Your task to perform on an android device: search for starred emails in the gmail app Image 0: 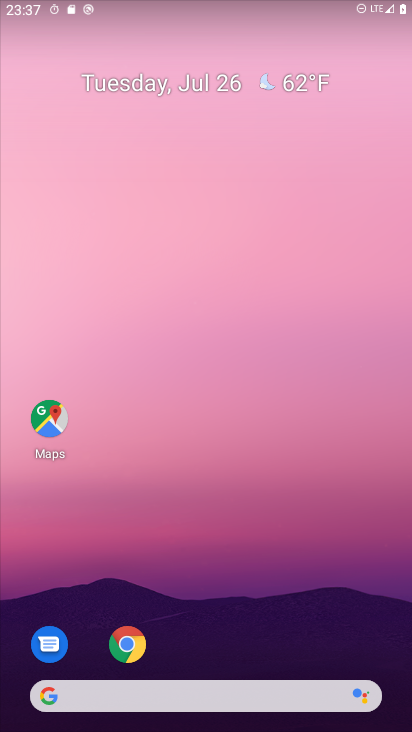
Step 0: drag from (244, 665) to (231, 71)
Your task to perform on an android device: search for starred emails in the gmail app Image 1: 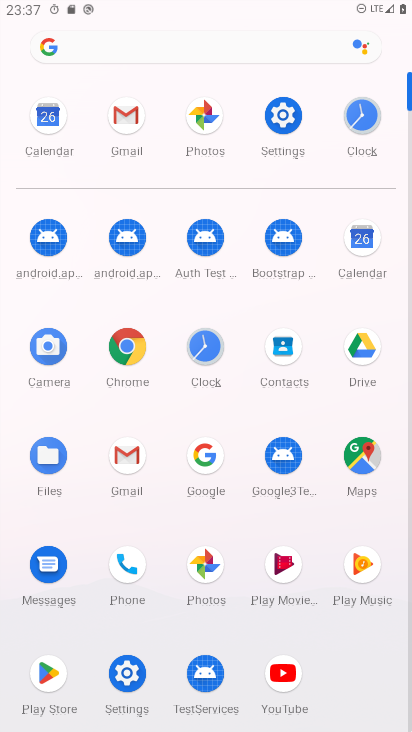
Step 1: click (134, 121)
Your task to perform on an android device: search for starred emails in the gmail app Image 2: 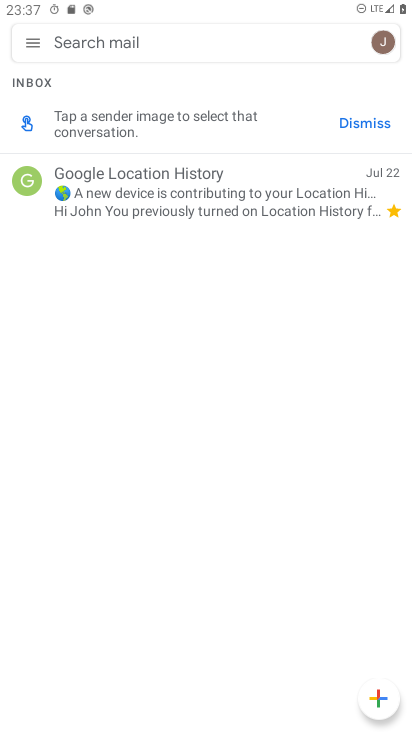
Step 2: click (31, 38)
Your task to perform on an android device: search for starred emails in the gmail app Image 3: 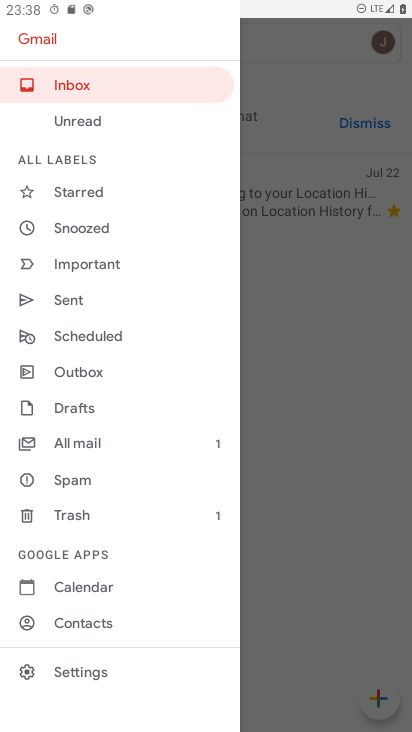
Step 3: click (79, 194)
Your task to perform on an android device: search for starred emails in the gmail app Image 4: 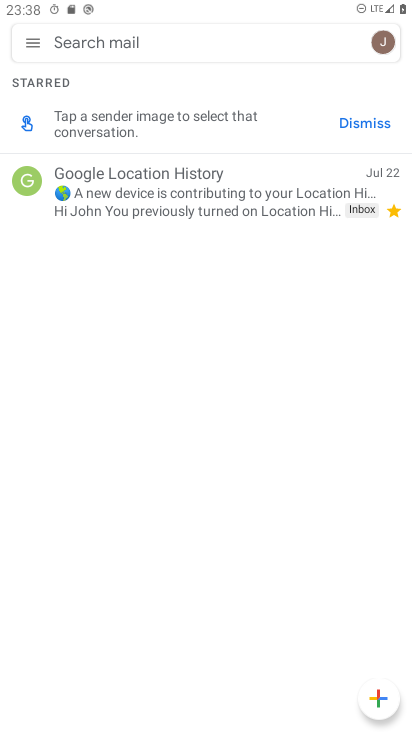
Step 4: task complete